Your task to perform on an android device: Do I have any events this weekend? Image 0: 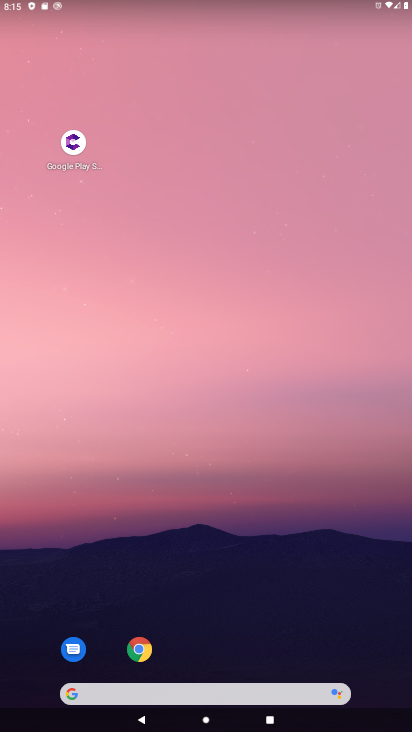
Step 0: drag from (383, 656) to (304, 129)
Your task to perform on an android device: Do I have any events this weekend? Image 1: 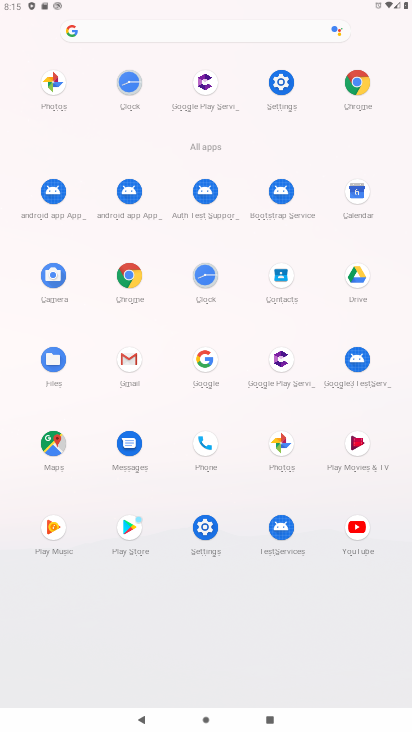
Step 1: click (355, 186)
Your task to perform on an android device: Do I have any events this weekend? Image 2: 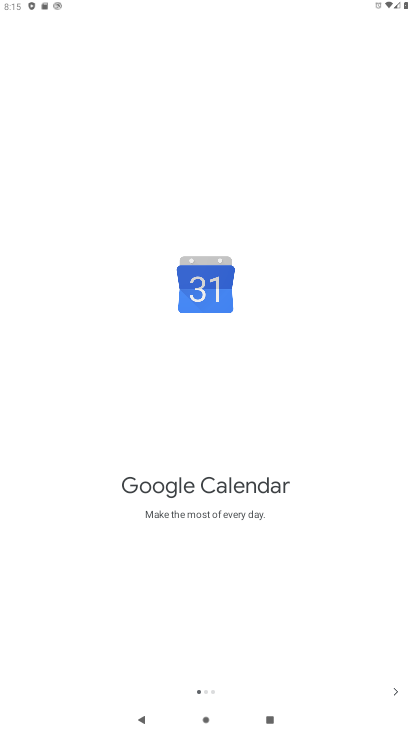
Step 2: click (393, 694)
Your task to perform on an android device: Do I have any events this weekend? Image 3: 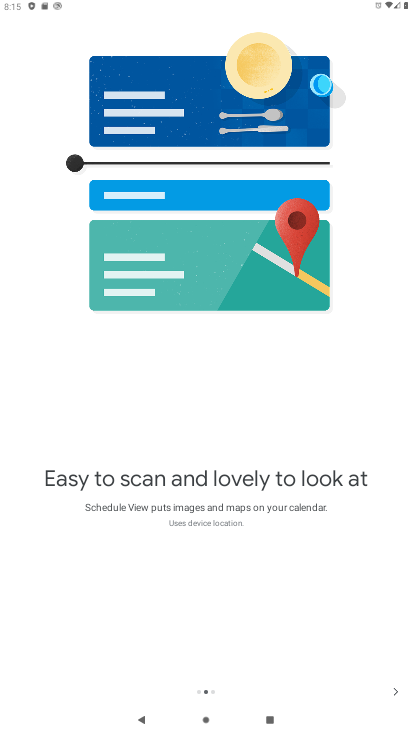
Step 3: click (393, 694)
Your task to perform on an android device: Do I have any events this weekend? Image 4: 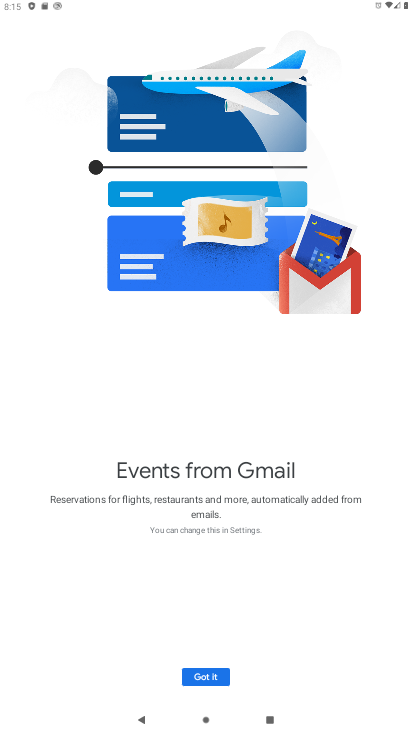
Step 4: click (199, 675)
Your task to perform on an android device: Do I have any events this weekend? Image 5: 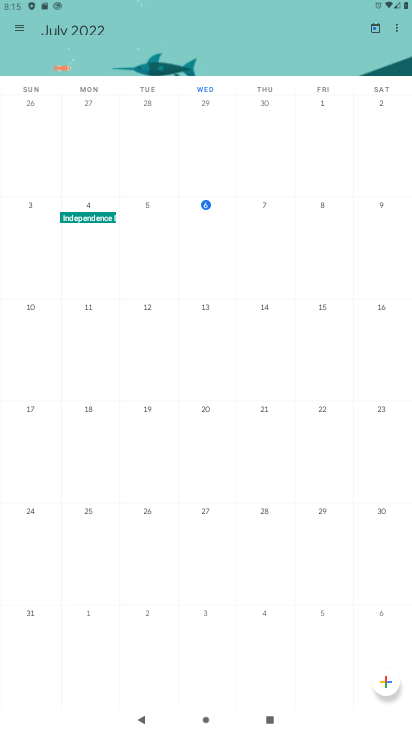
Step 5: click (19, 30)
Your task to perform on an android device: Do I have any events this weekend? Image 6: 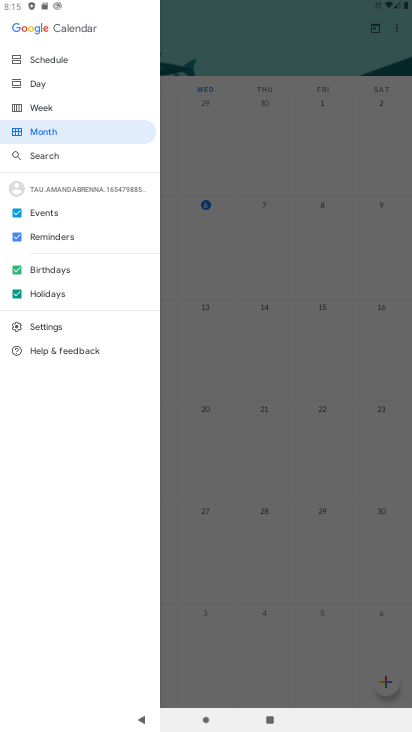
Step 6: click (32, 103)
Your task to perform on an android device: Do I have any events this weekend? Image 7: 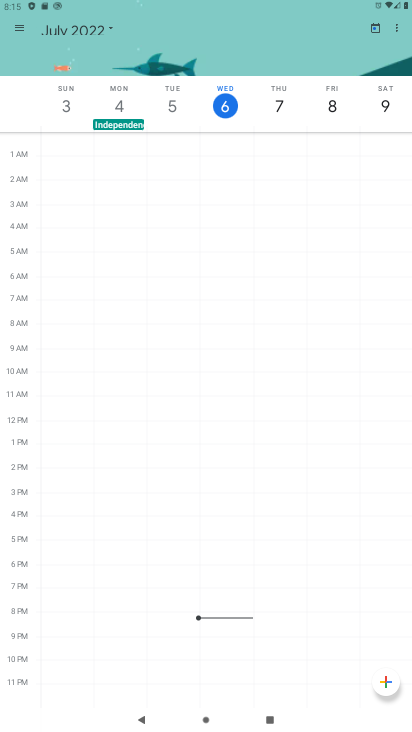
Step 7: task complete